Your task to perform on an android device: Show me recent news Image 0: 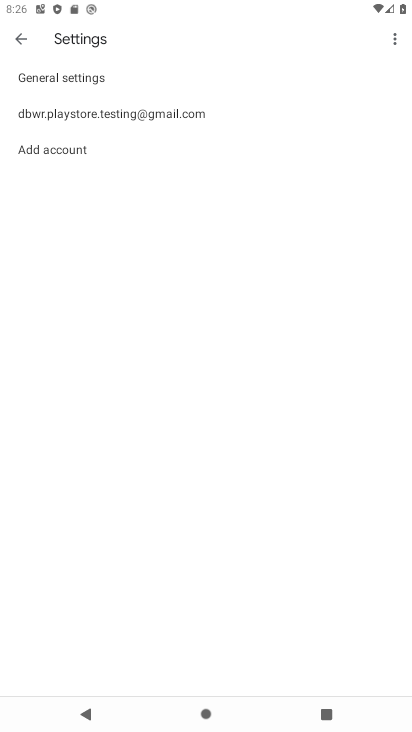
Step 0: press home button
Your task to perform on an android device: Show me recent news Image 1: 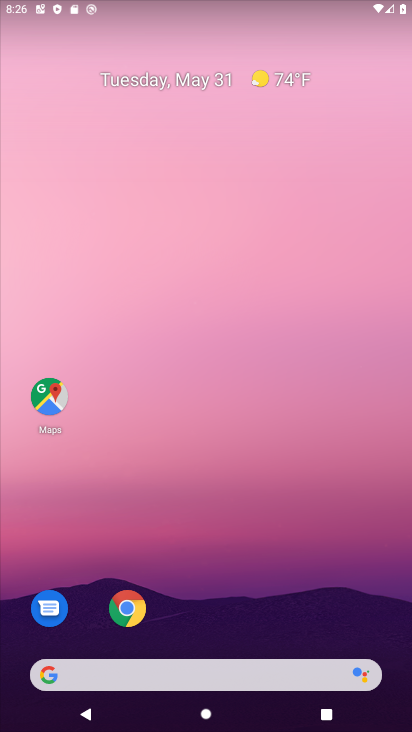
Step 1: click (103, 661)
Your task to perform on an android device: Show me recent news Image 2: 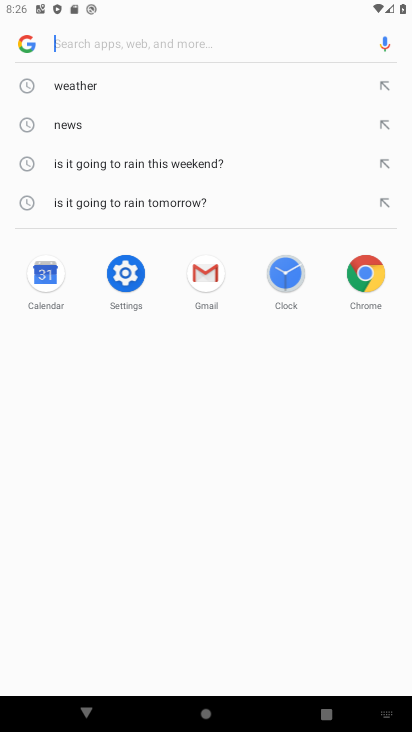
Step 2: click (54, 126)
Your task to perform on an android device: Show me recent news Image 3: 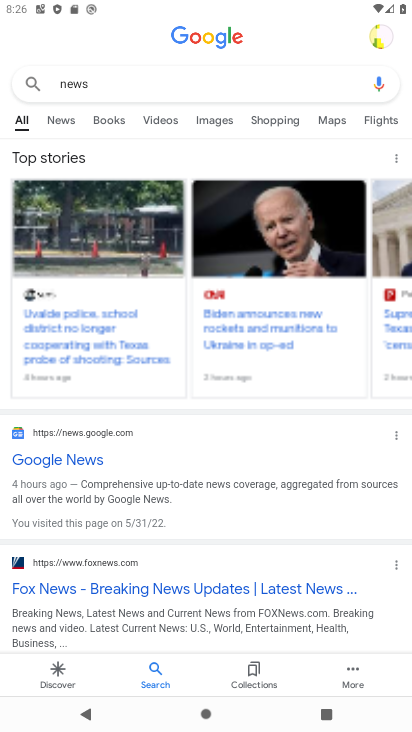
Step 3: click (63, 112)
Your task to perform on an android device: Show me recent news Image 4: 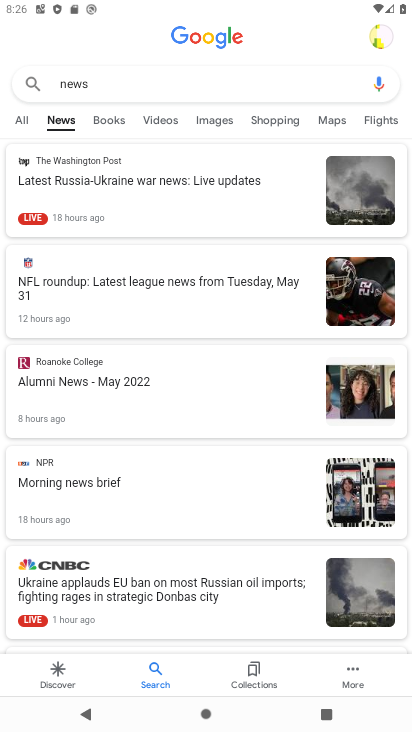
Step 4: task complete